Your task to perform on an android device: Open calendar and show me the second week of next month Image 0: 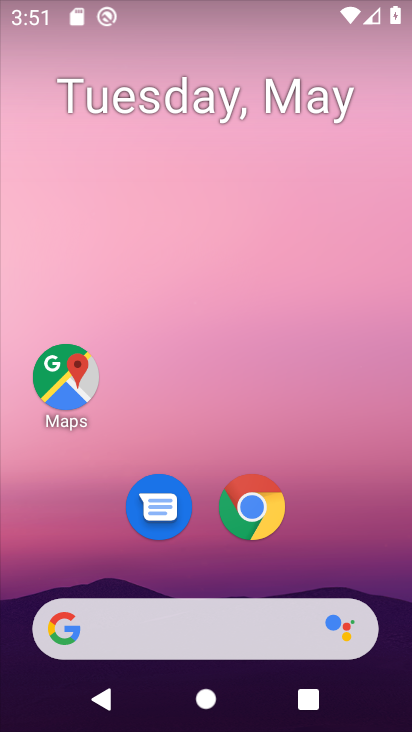
Step 0: drag from (325, 550) to (338, 0)
Your task to perform on an android device: Open calendar and show me the second week of next month Image 1: 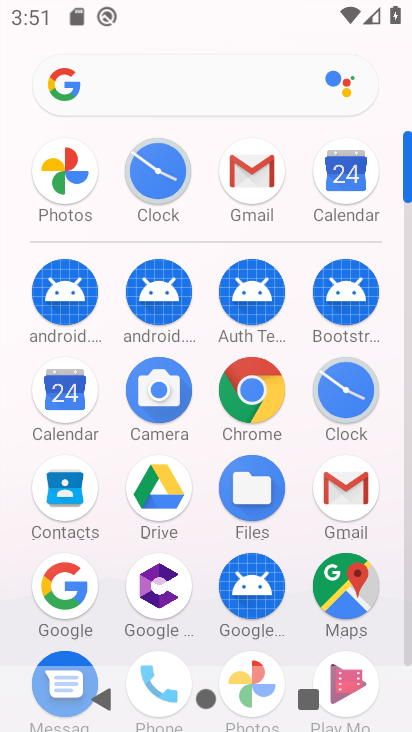
Step 1: drag from (214, 496) to (257, 188)
Your task to perform on an android device: Open calendar and show me the second week of next month Image 2: 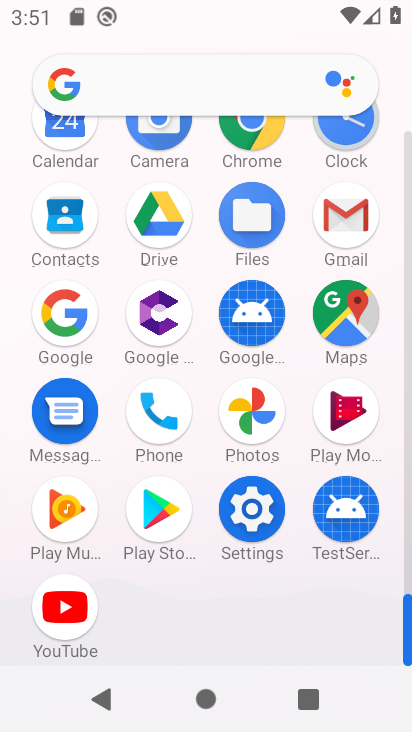
Step 2: click (69, 138)
Your task to perform on an android device: Open calendar and show me the second week of next month Image 3: 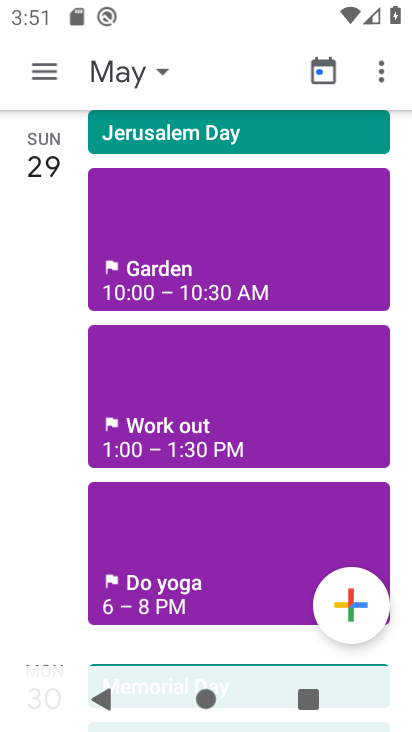
Step 3: click (148, 54)
Your task to perform on an android device: Open calendar and show me the second week of next month Image 4: 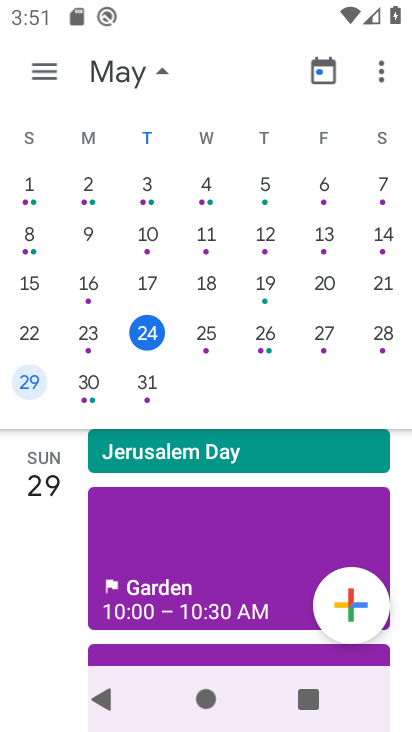
Step 4: drag from (354, 285) to (41, 275)
Your task to perform on an android device: Open calendar and show me the second week of next month Image 5: 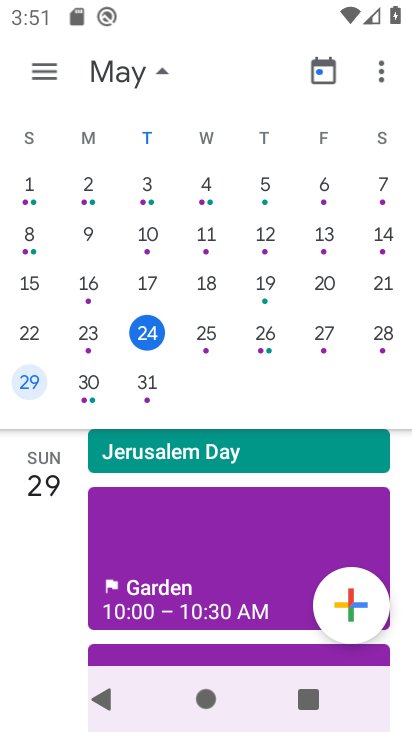
Step 5: drag from (381, 328) to (14, 326)
Your task to perform on an android device: Open calendar and show me the second week of next month Image 6: 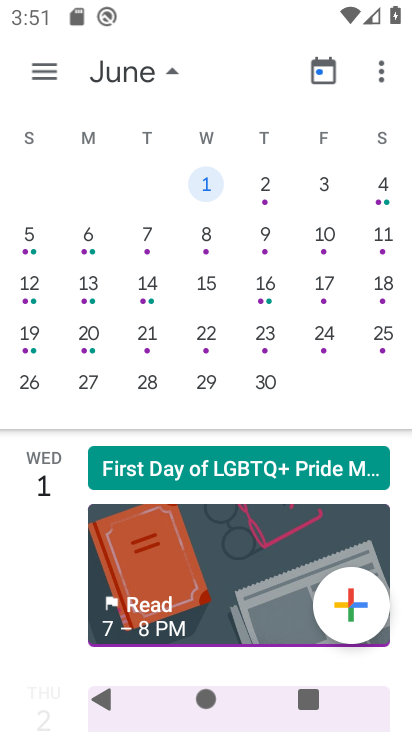
Step 6: click (44, 256)
Your task to perform on an android device: Open calendar and show me the second week of next month Image 7: 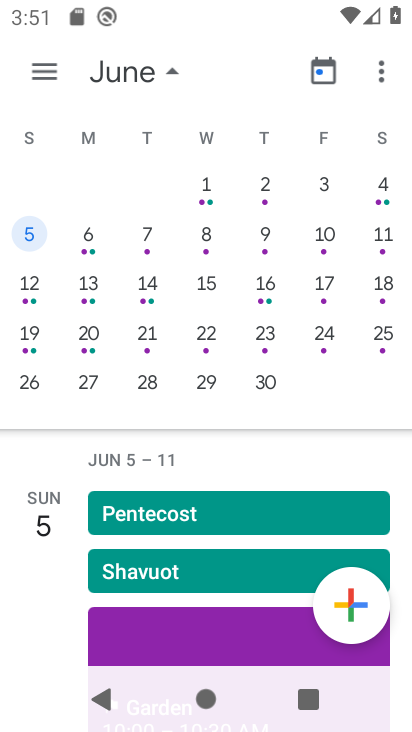
Step 7: task complete